Your task to perform on an android device: Go to Yahoo.com Image 0: 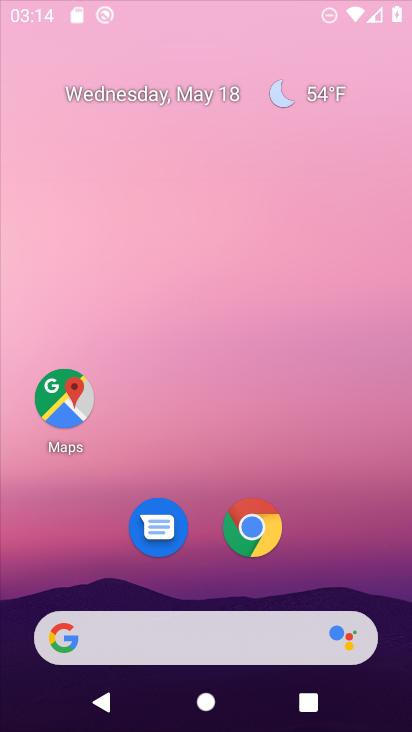
Step 0: drag from (230, 576) to (332, 11)
Your task to perform on an android device: Go to Yahoo.com Image 1: 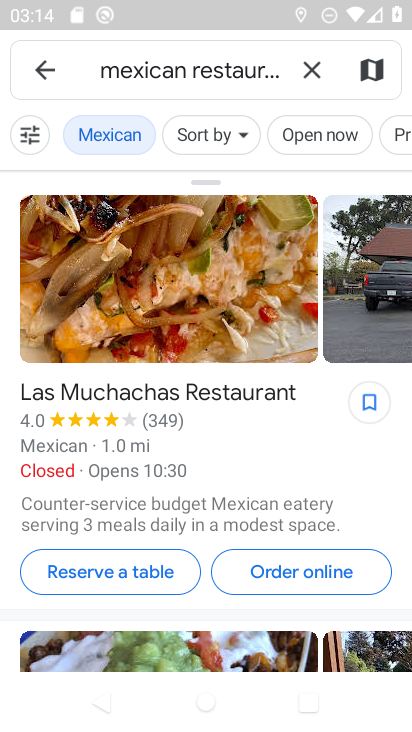
Step 1: press home button
Your task to perform on an android device: Go to Yahoo.com Image 2: 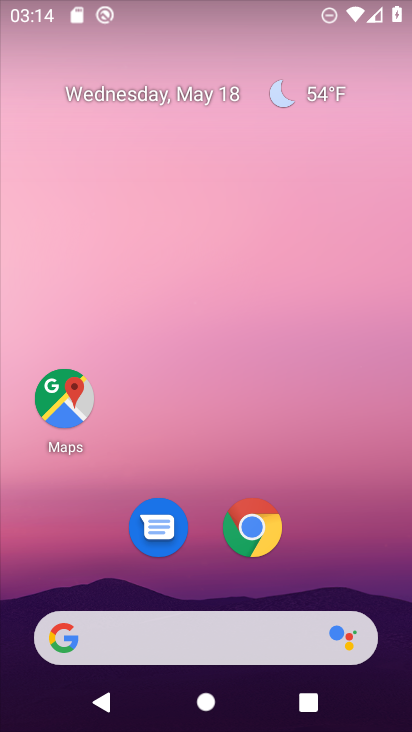
Step 2: click (254, 542)
Your task to perform on an android device: Go to Yahoo.com Image 3: 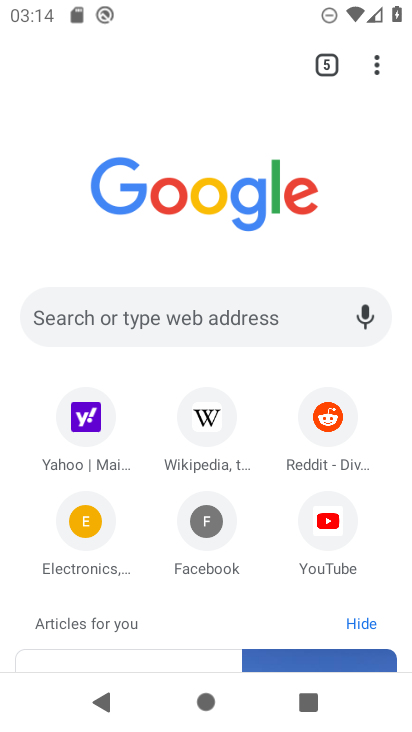
Step 3: click (79, 435)
Your task to perform on an android device: Go to Yahoo.com Image 4: 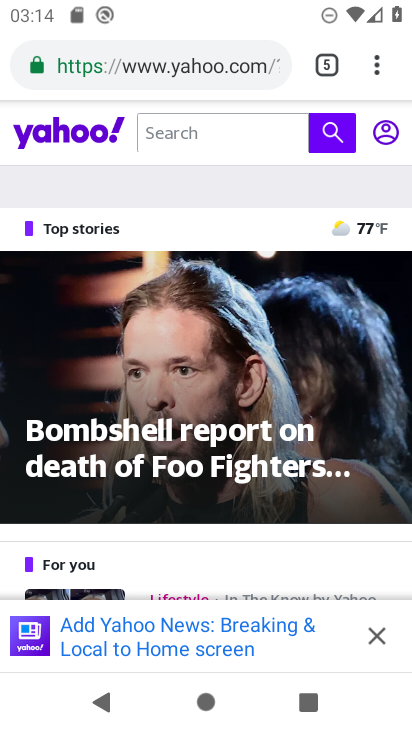
Step 4: task complete